Your task to perform on an android device: Open sound settings Image 0: 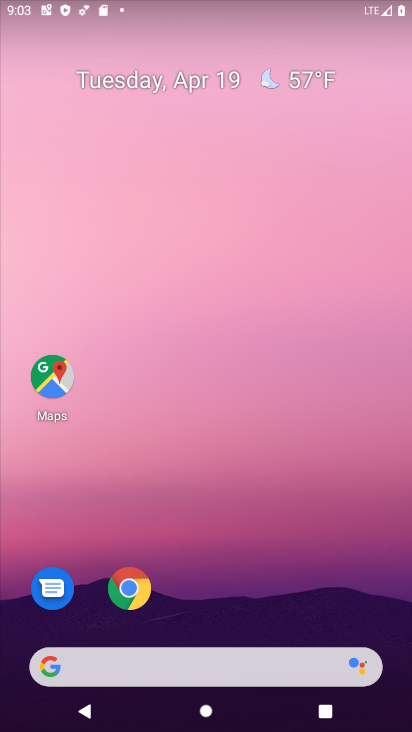
Step 0: drag from (329, 569) to (206, 122)
Your task to perform on an android device: Open sound settings Image 1: 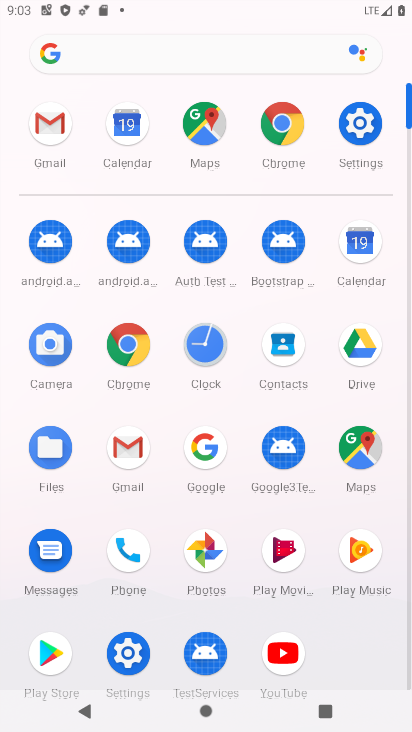
Step 1: click (358, 127)
Your task to perform on an android device: Open sound settings Image 2: 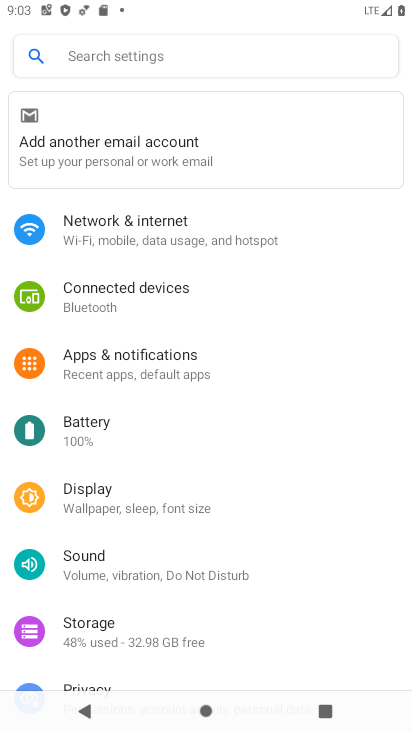
Step 2: click (158, 561)
Your task to perform on an android device: Open sound settings Image 3: 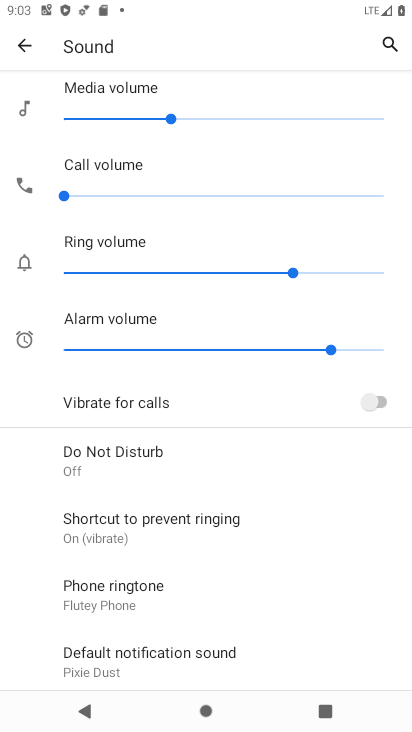
Step 3: task complete